Your task to perform on an android device: Open Maps and search for coffee Image 0: 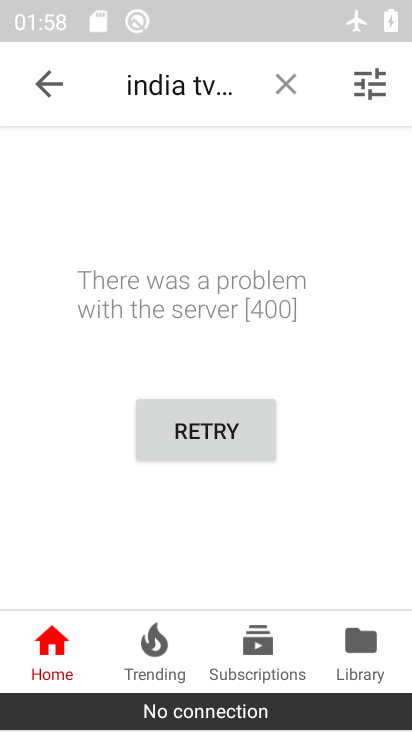
Step 0: press home button
Your task to perform on an android device: Open Maps and search for coffee Image 1: 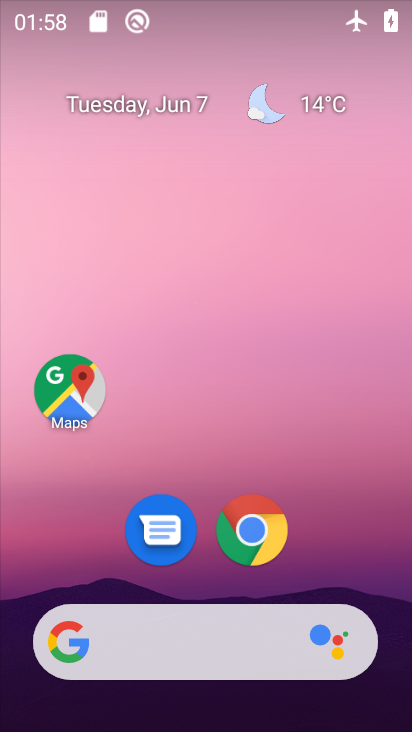
Step 1: click (73, 372)
Your task to perform on an android device: Open Maps and search for coffee Image 2: 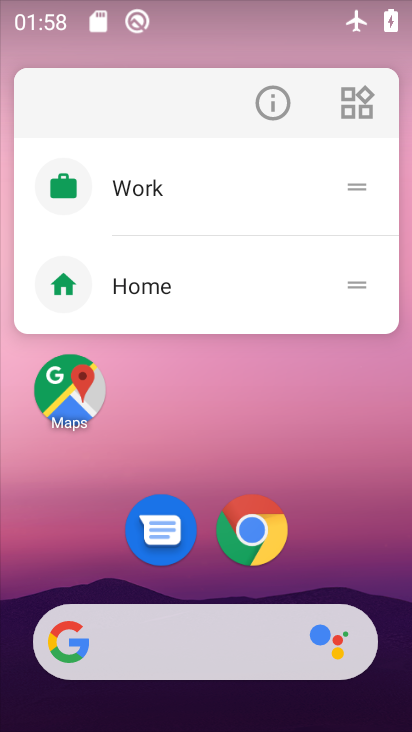
Step 2: click (79, 383)
Your task to perform on an android device: Open Maps and search for coffee Image 3: 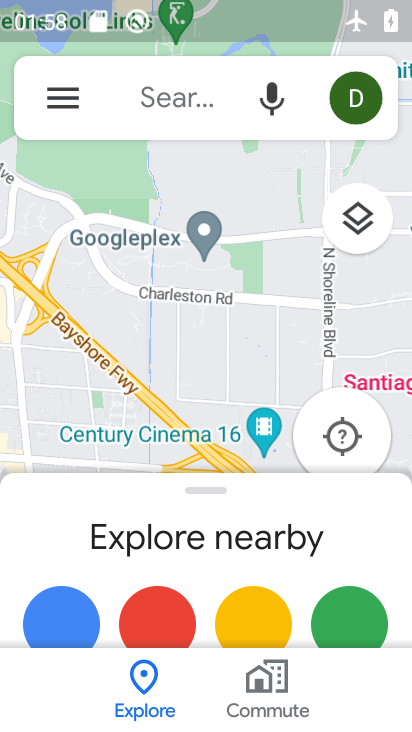
Step 3: click (144, 102)
Your task to perform on an android device: Open Maps and search for coffee Image 4: 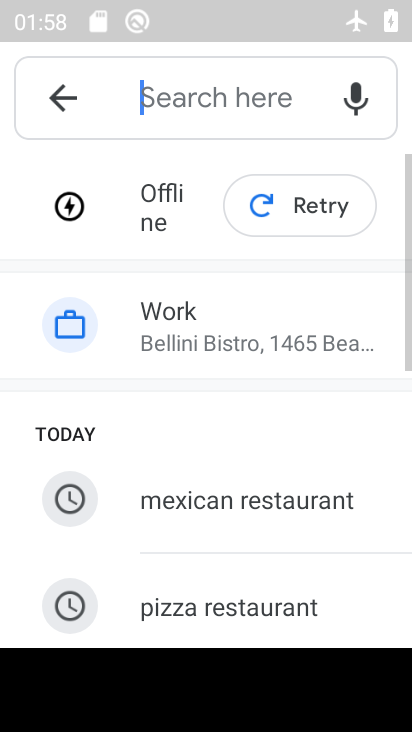
Step 4: drag from (233, 292) to (233, 243)
Your task to perform on an android device: Open Maps and search for coffee Image 5: 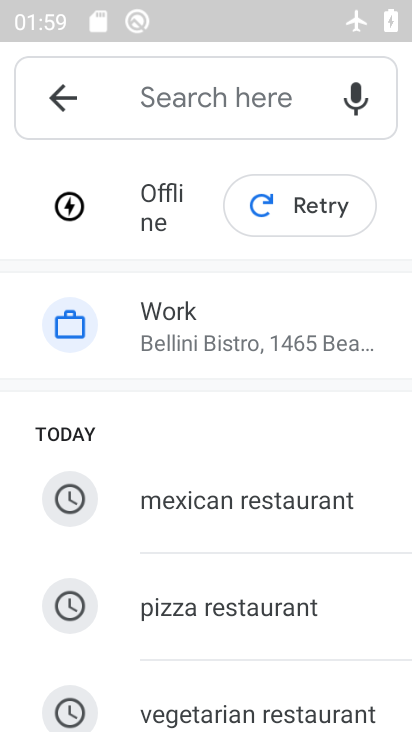
Step 5: click (178, 89)
Your task to perform on an android device: Open Maps and search for coffee Image 6: 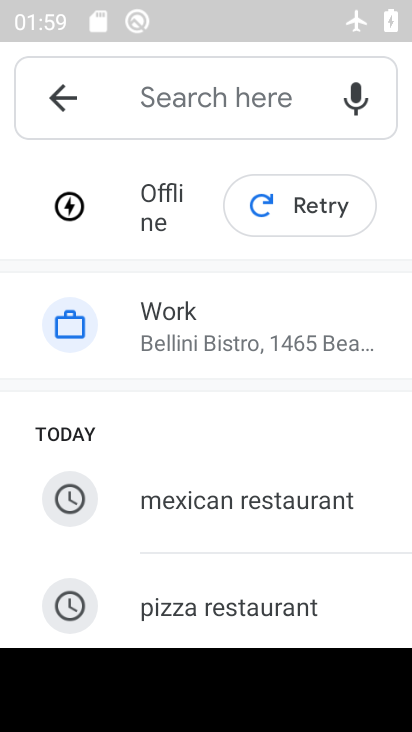
Step 6: type " coffee"
Your task to perform on an android device: Open Maps and search for coffee Image 7: 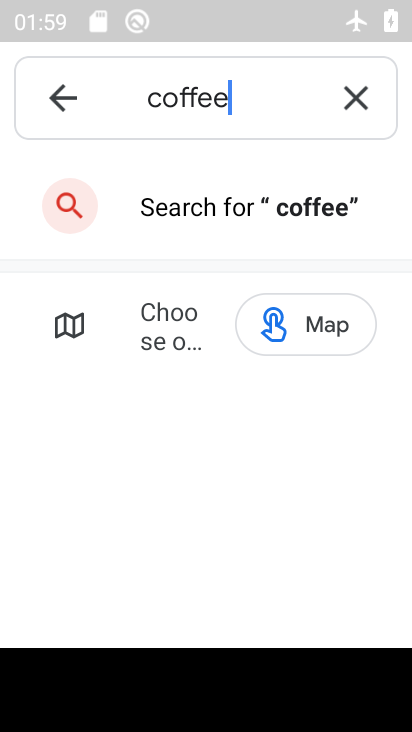
Step 7: task complete